Your task to perform on an android device: Go to Wikipedia Image 0: 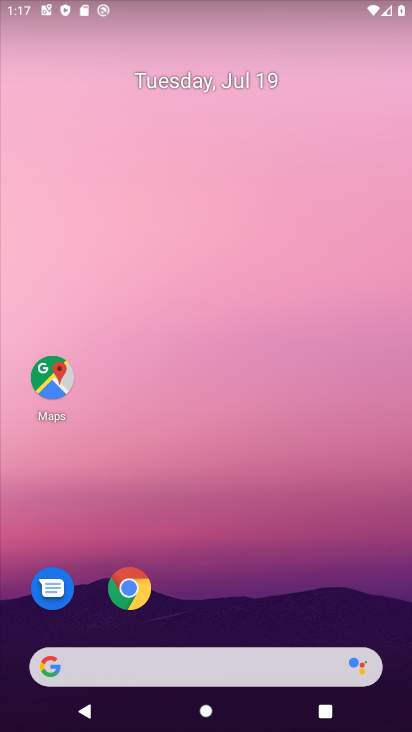
Step 0: click (134, 665)
Your task to perform on an android device: Go to Wikipedia Image 1: 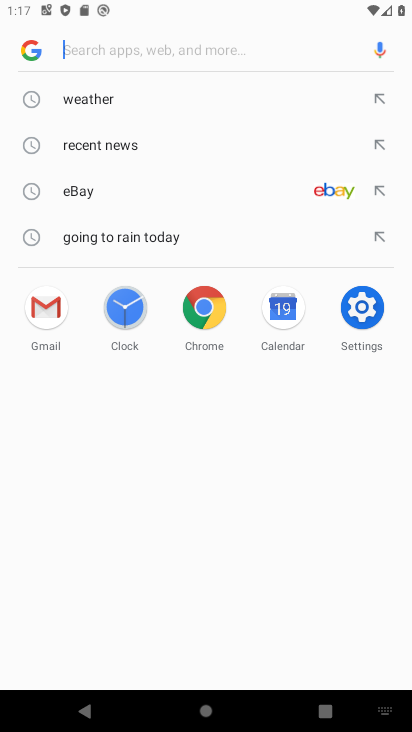
Step 1: type " Wikipedia"
Your task to perform on an android device: Go to Wikipedia Image 2: 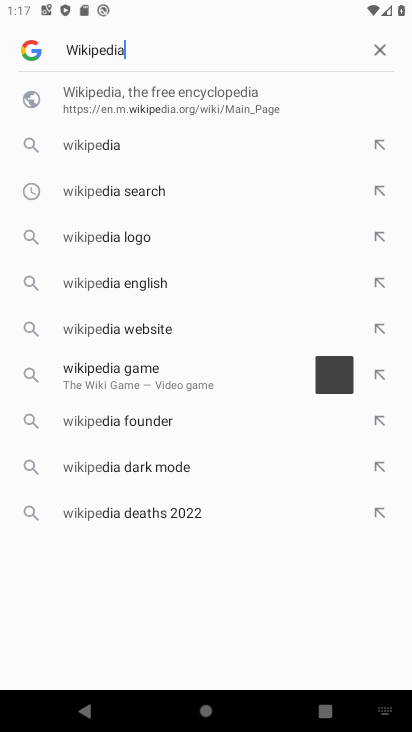
Step 2: type ""
Your task to perform on an android device: Go to Wikipedia Image 3: 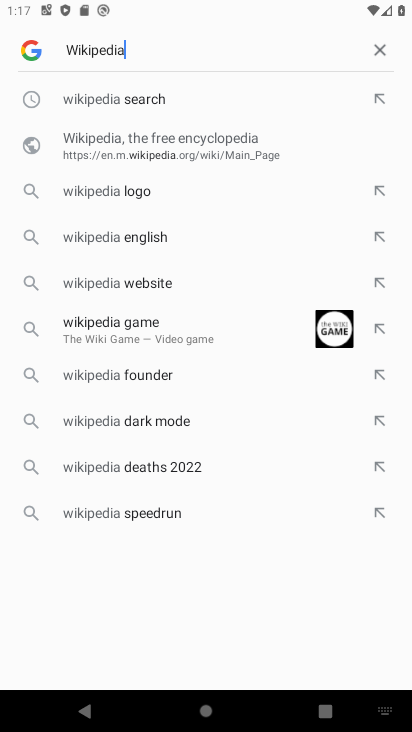
Step 3: type ""
Your task to perform on an android device: Go to Wikipedia Image 4: 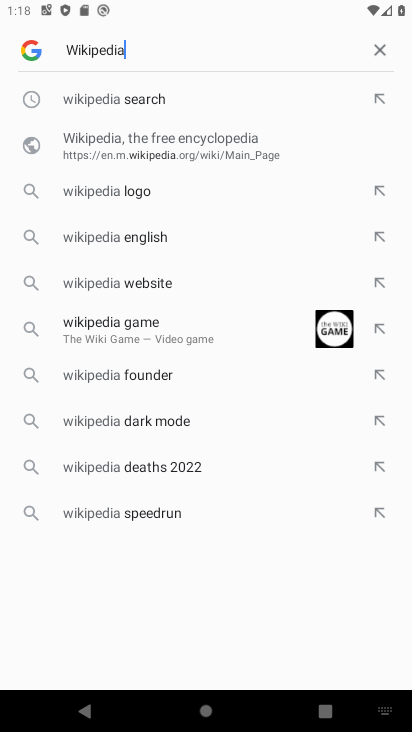
Step 4: task complete